Your task to perform on an android device: empty trash in the gmail app Image 0: 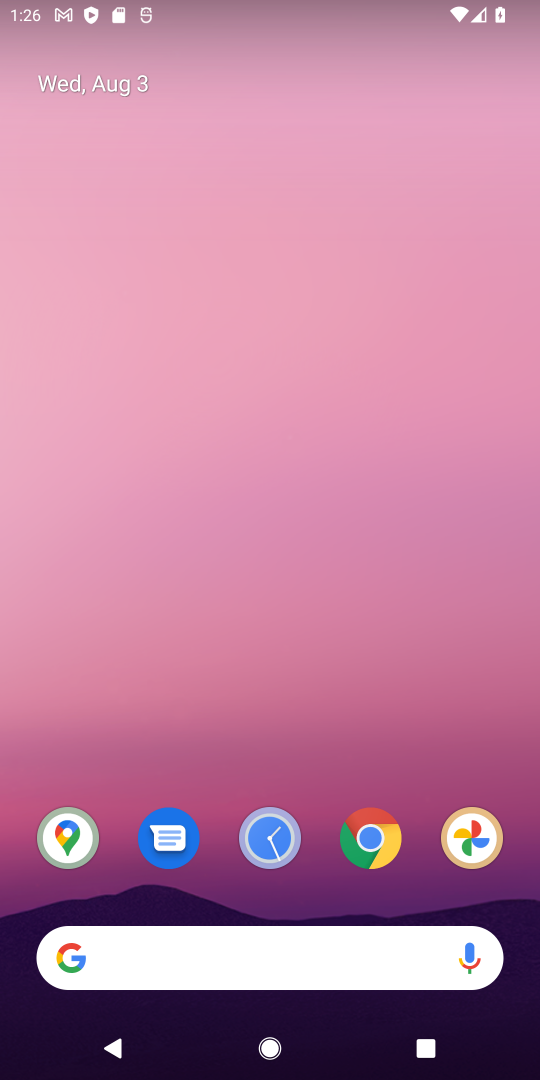
Step 0: drag from (315, 653) to (435, 39)
Your task to perform on an android device: empty trash in the gmail app Image 1: 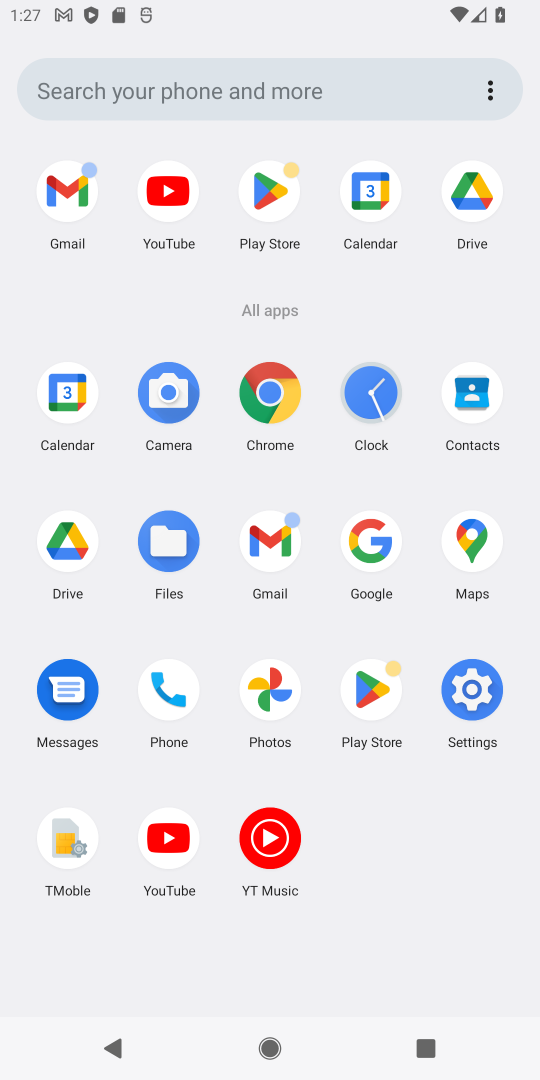
Step 1: click (66, 182)
Your task to perform on an android device: empty trash in the gmail app Image 2: 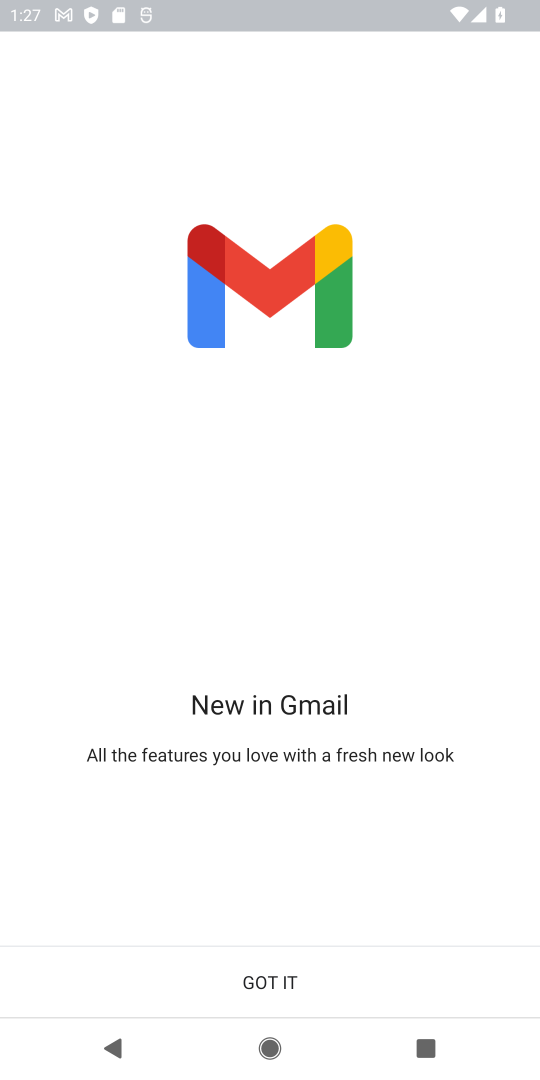
Step 2: click (253, 971)
Your task to perform on an android device: empty trash in the gmail app Image 3: 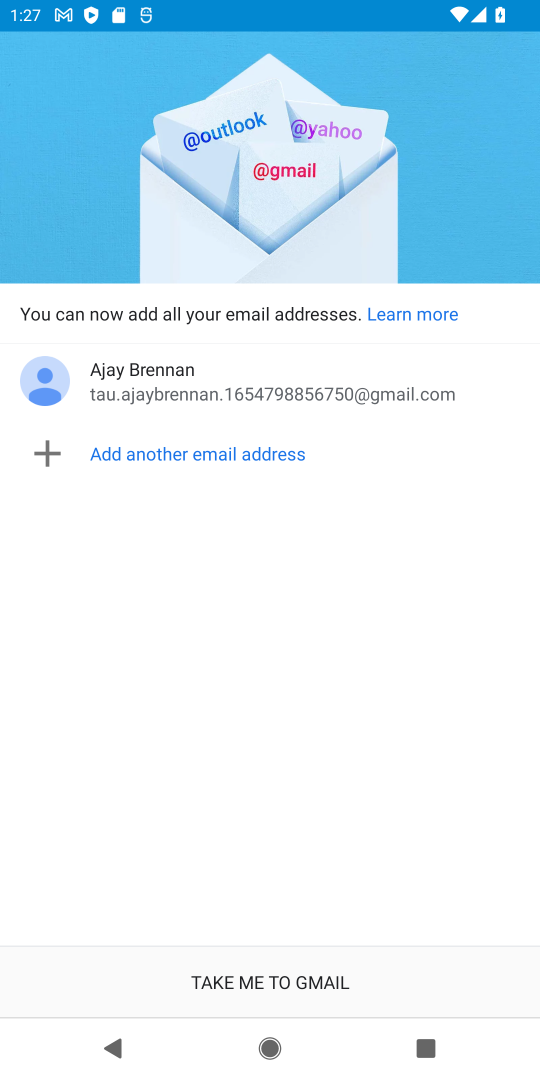
Step 3: click (253, 971)
Your task to perform on an android device: empty trash in the gmail app Image 4: 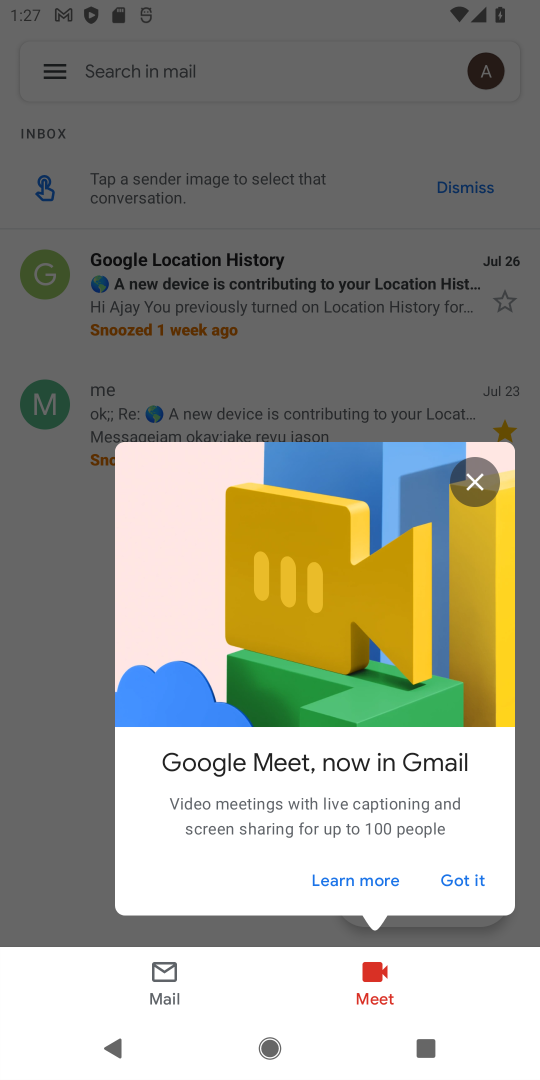
Step 4: click (441, 882)
Your task to perform on an android device: empty trash in the gmail app Image 5: 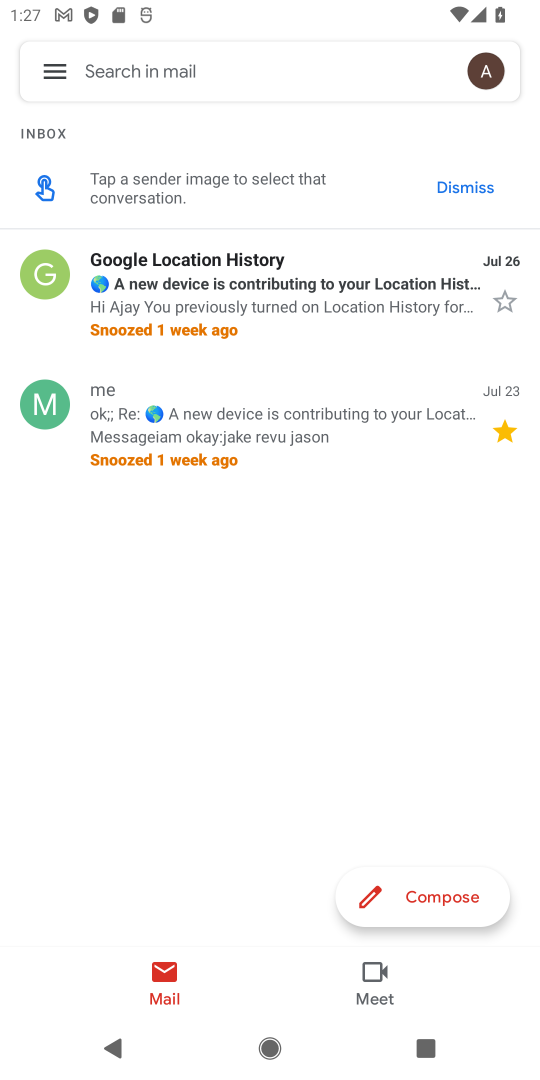
Step 5: click (49, 69)
Your task to perform on an android device: empty trash in the gmail app Image 6: 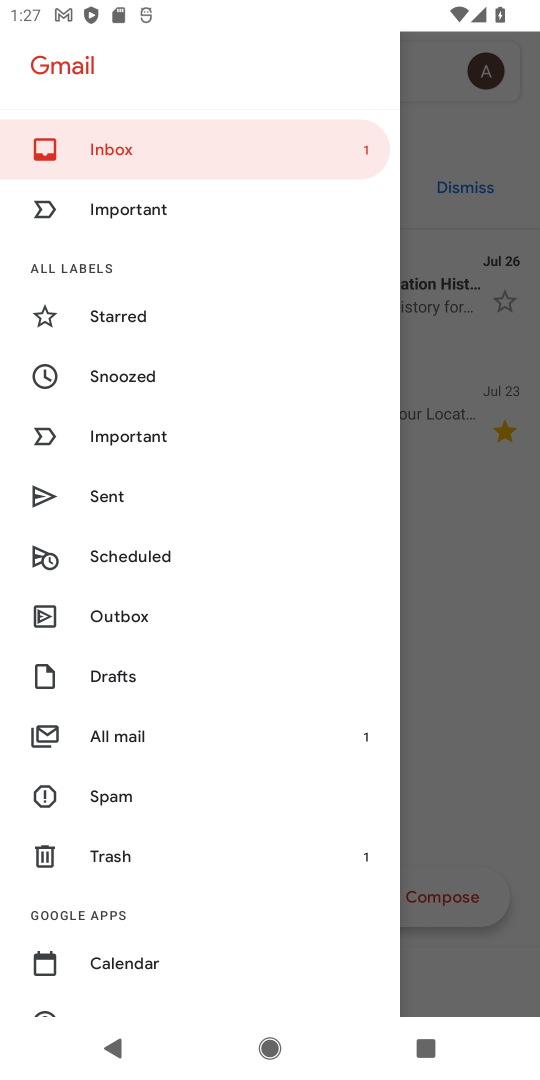
Step 6: click (114, 851)
Your task to perform on an android device: empty trash in the gmail app Image 7: 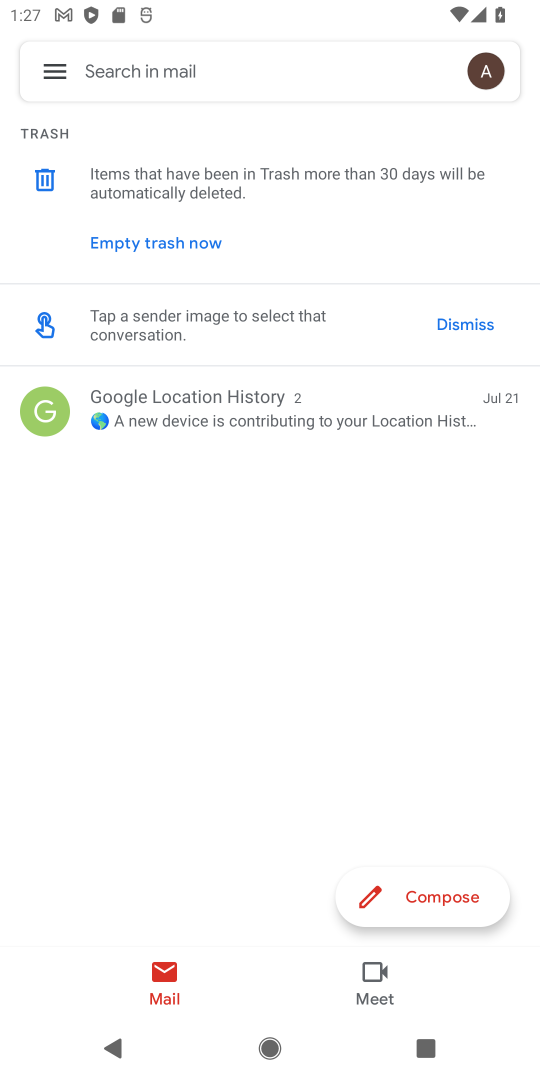
Step 7: click (140, 237)
Your task to perform on an android device: empty trash in the gmail app Image 8: 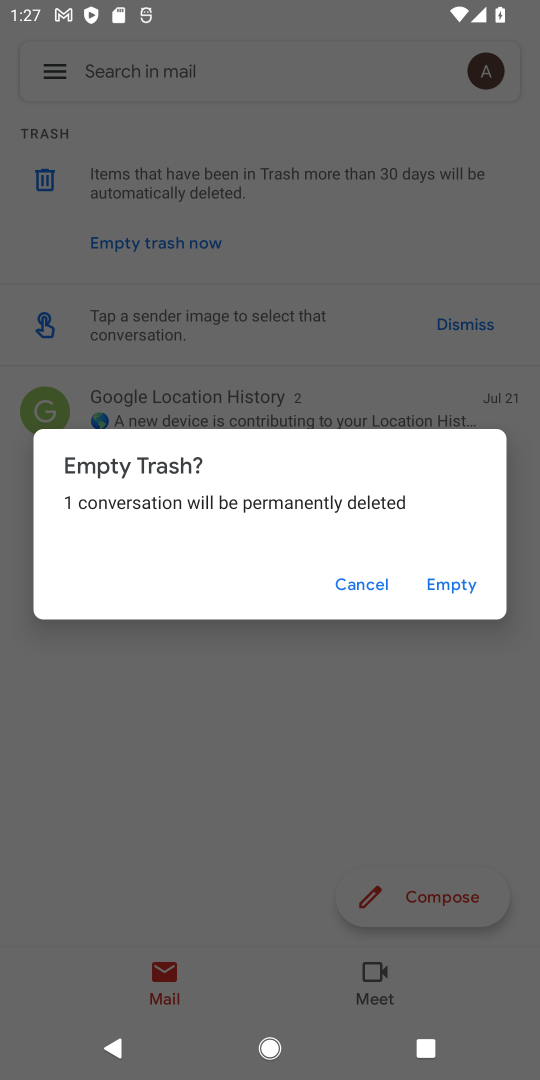
Step 8: click (456, 582)
Your task to perform on an android device: empty trash in the gmail app Image 9: 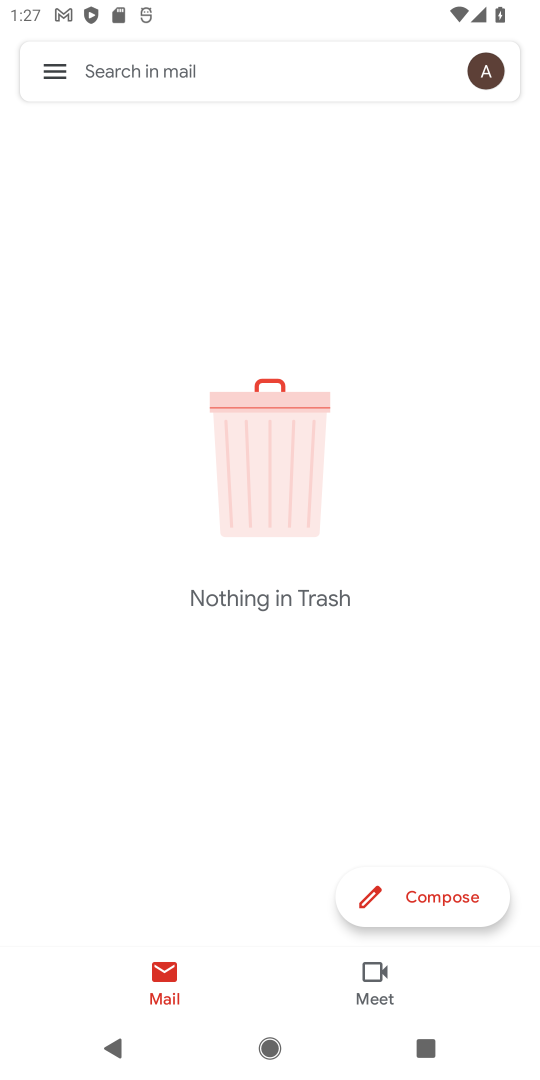
Step 9: task complete